Your task to perform on an android device: Open calendar and show me the second week of next month Image 0: 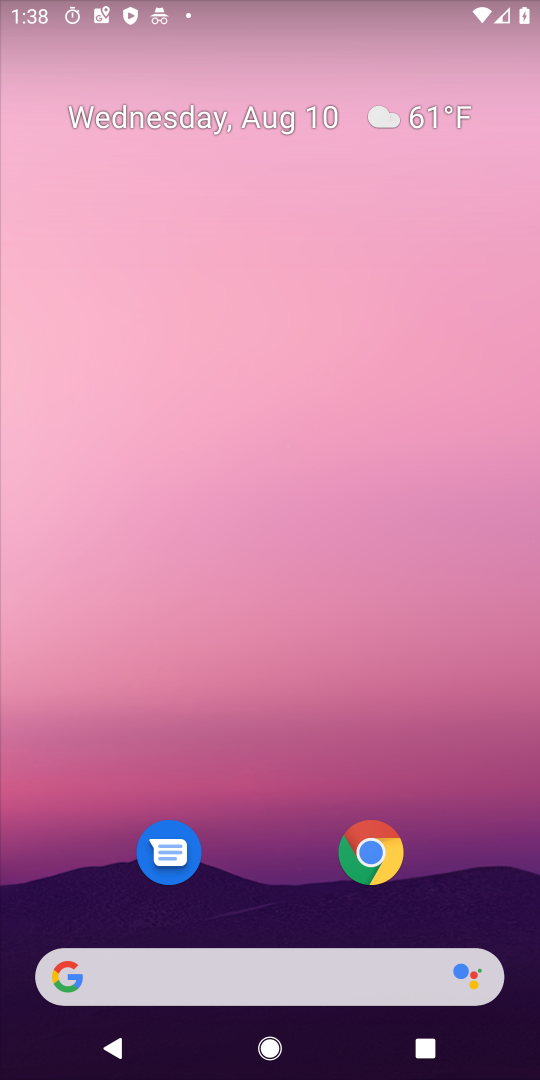
Step 0: drag from (283, 903) to (308, 102)
Your task to perform on an android device: Open calendar and show me the second week of next month Image 1: 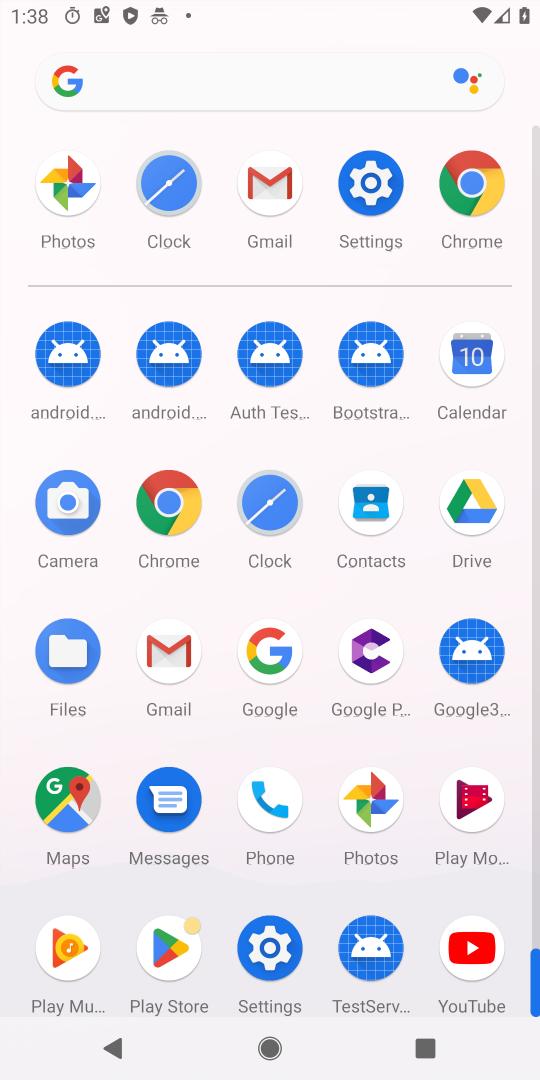
Step 1: click (479, 367)
Your task to perform on an android device: Open calendar and show me the second week of next month Image 2: 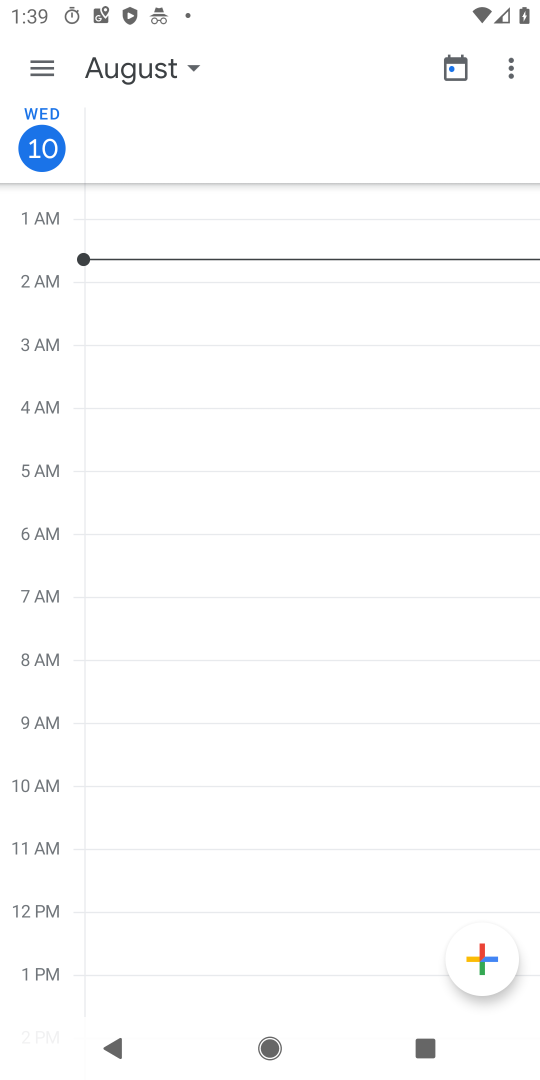
Step 2: click (106, 68)
Your task to perform on an android device: Open calendar and show me the second week of next month Image 3: 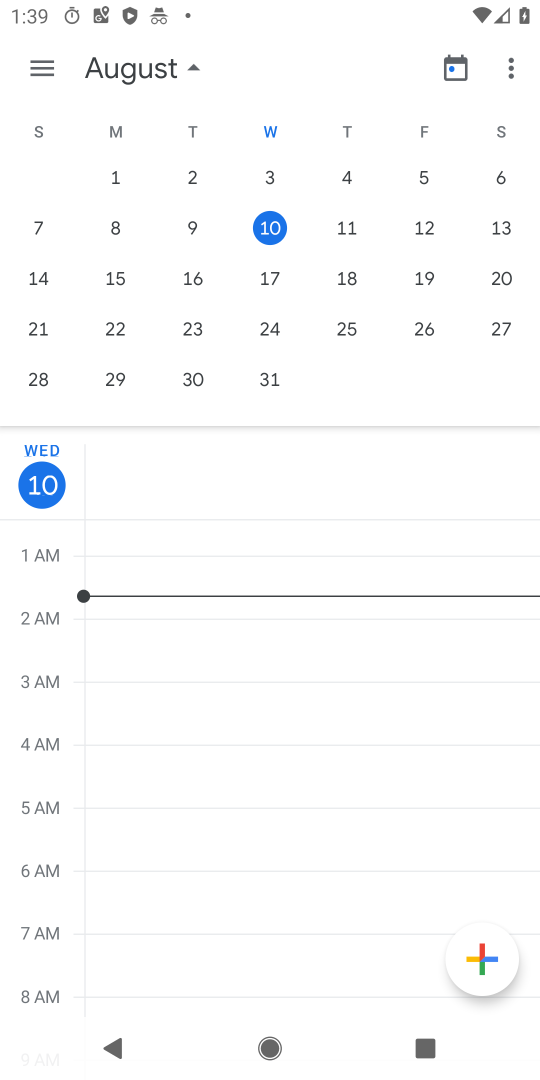
Step 3: drag from (436, 294) to (1, 354)
Your task to perform on an android device: Open calendar and show me the second week of next month Image 4: 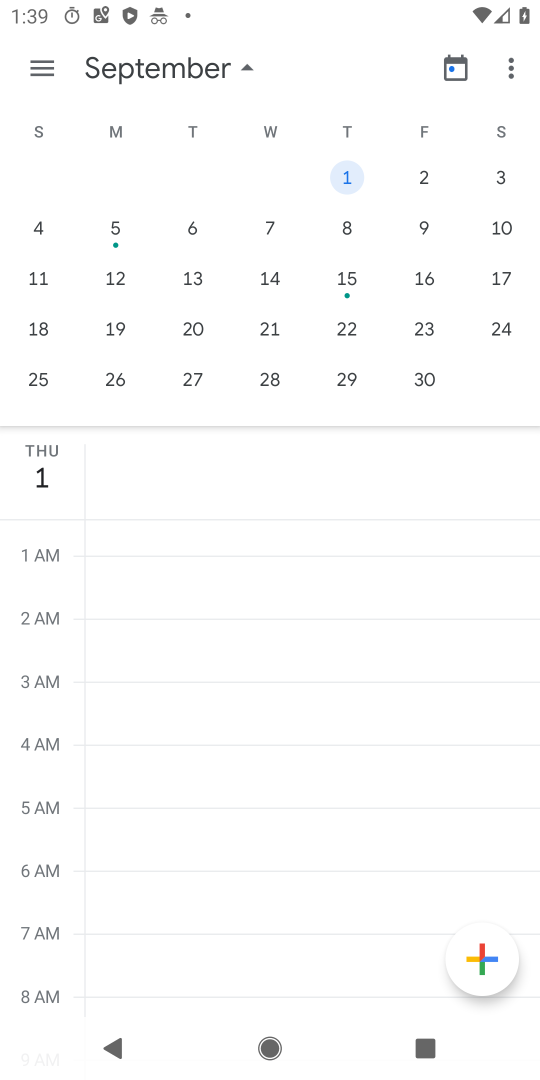
Step 4: click (198, 273)
Your task to perform on an android device: Open calendar and show me the second week of next month Image 5: 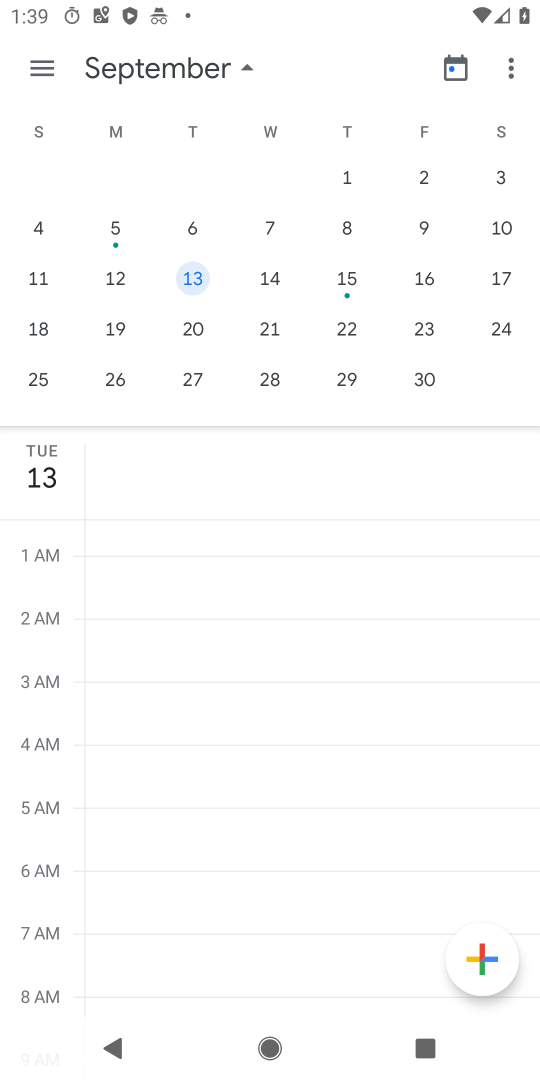
Step 5: click (50, 55)
Your task to perform on an android device: Open calendar and show me the second week of next month Image 6: 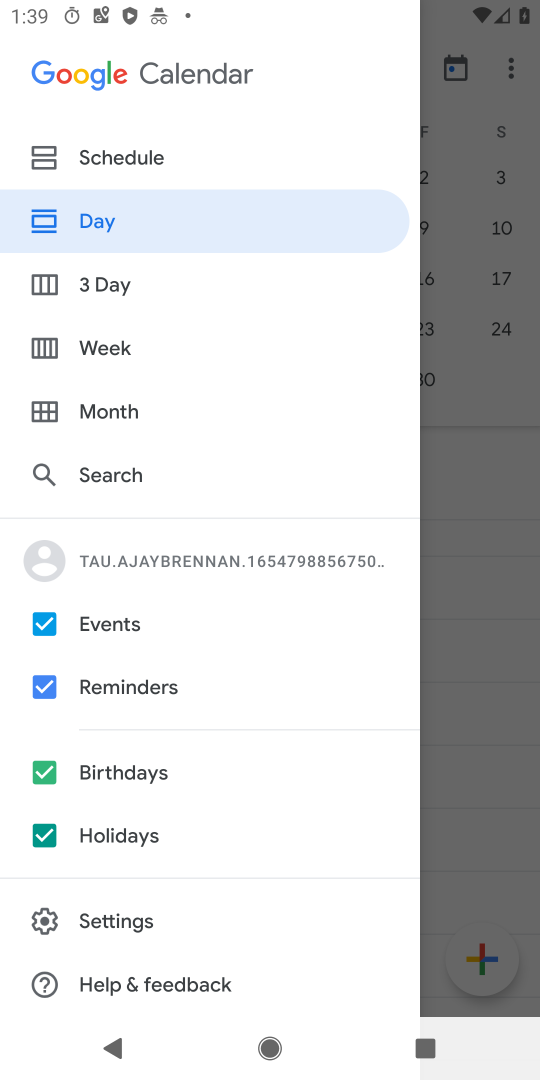
Step 6: click (118, 340)
Your task to perform on an android device: Open calendar and show me the second week of next month Image 7: 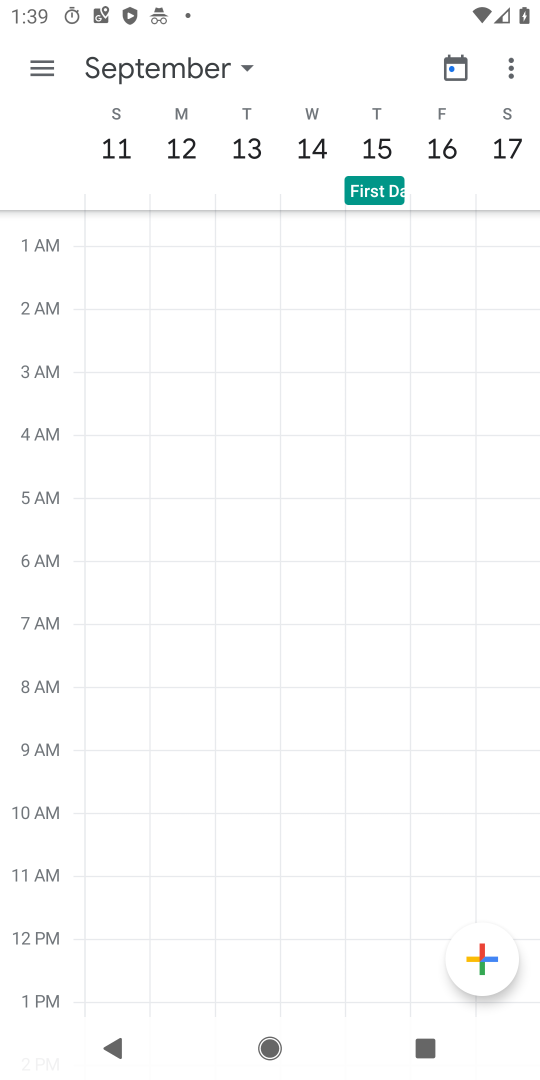
Step 7: task complete